Your task to perform on an android device: turn off notifications in google photos Image 0: 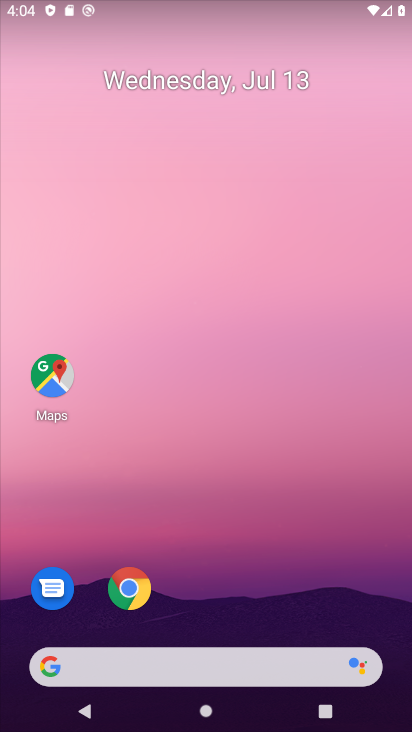
Step 0: drag from (20, 709) to (217, 84)
Your task to perform on an android device: turn off notifications in google photos Image 1: 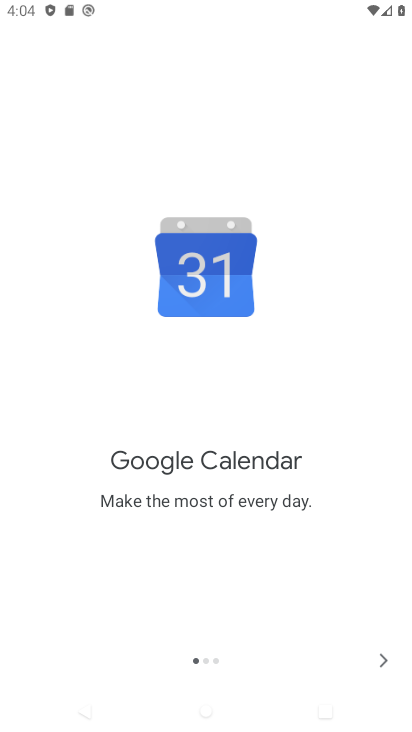
Step 1: task complete